Your task to perform on an android device: turn pop-ups off in chrome Image 0: 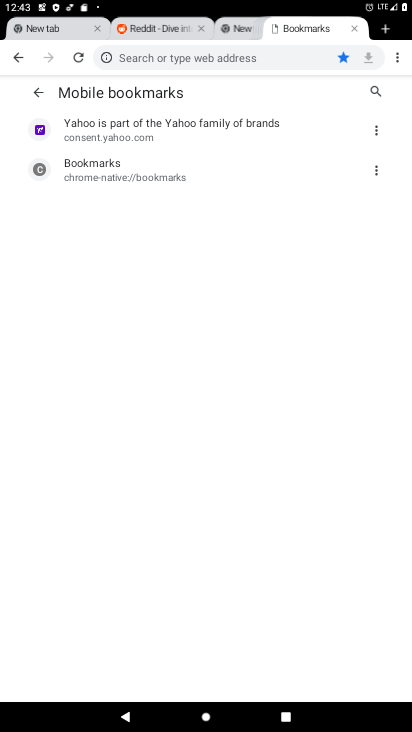
Step 0: press home button
Your task to perform on an android device: turn pop-ups off in chrome Image 1: 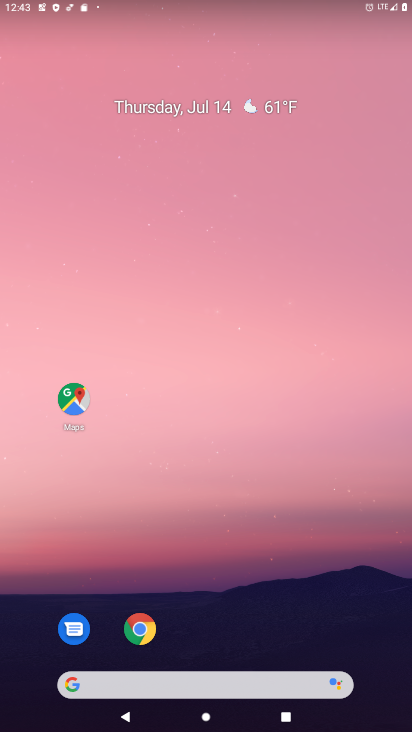
Step 1: click (140, 629)
Your task to perform on an android device: turn pop-ups off in chrome Image 2: 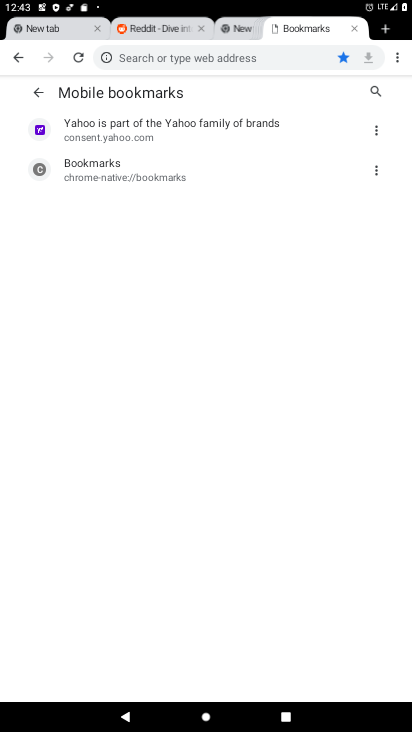
Step 2: click (398, 59)
Your task to perform on an android device: turn pop-ups off in chrome Image 3: 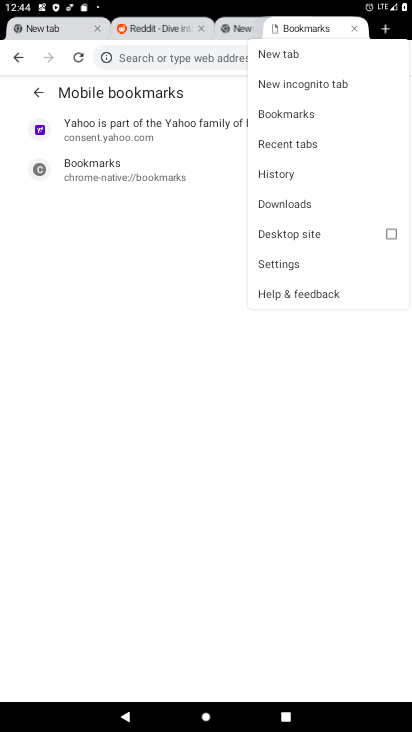
Step 3: click (275, 263)
Your task to perform on an android device: turn pop-ups off in chrome Image 4: 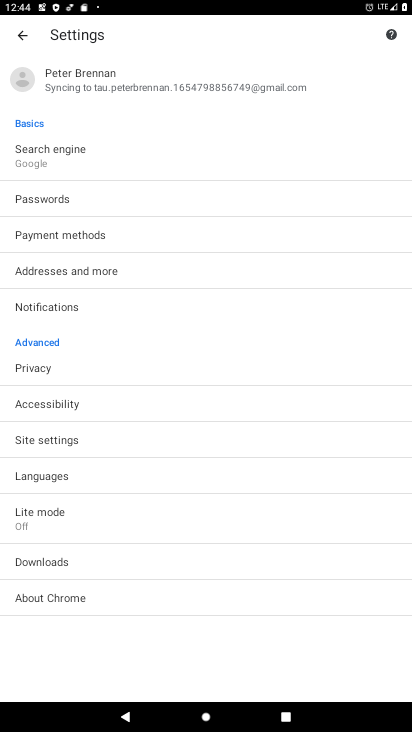
Step 4: click (52, 445)
Your task to perform on an android device: turn pop-ups off in chrome Image 5: 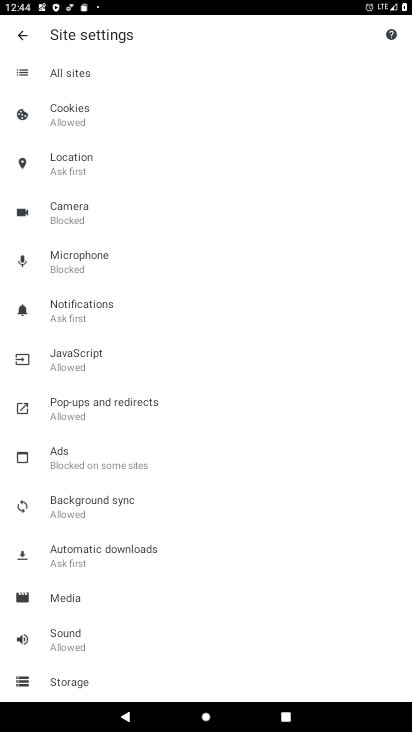
Step 5: click (88, 402)
Your task to perform on an android device: turn pop-ups off in chrome Image 6: 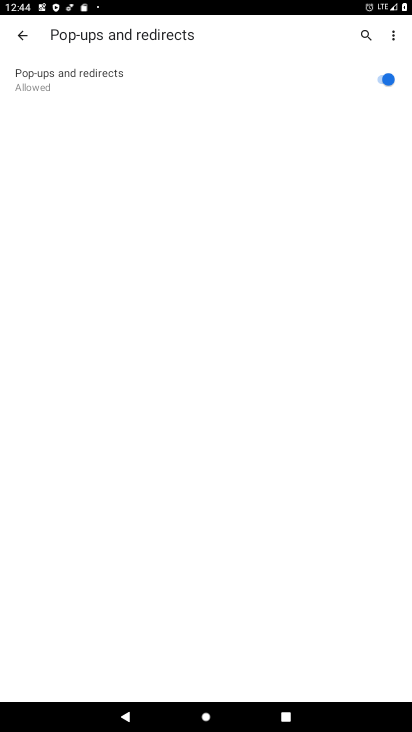
Step 6: click (387, 73)
Your task to perform on an android device: turn pop-ups off in chrome Image 7: 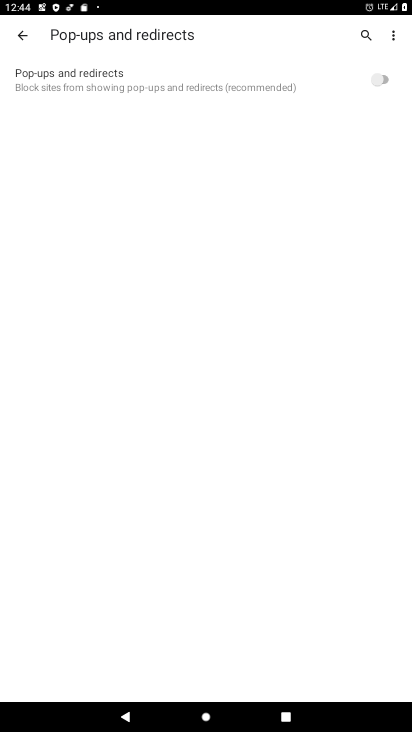
Step 7: task complete